Your task to perform on an android device: Go to Maps Image 0: 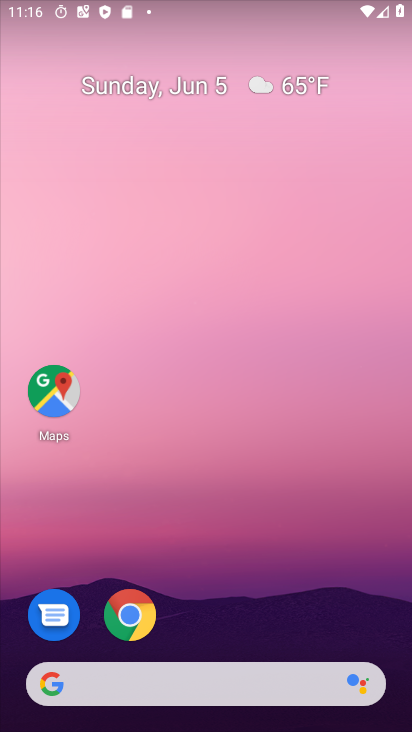
Step 0: click (36, 404)
Your task to perform on an android device: Go to Maps Image 1: 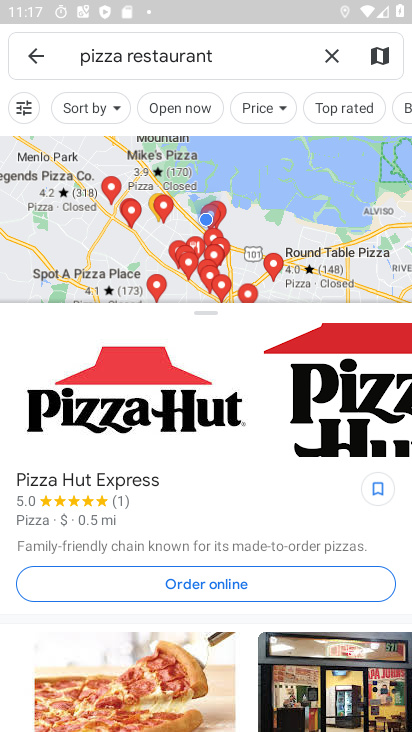
Step 1: task complete